Your task to perform on an android device: change the upload size in google photos Image 0: 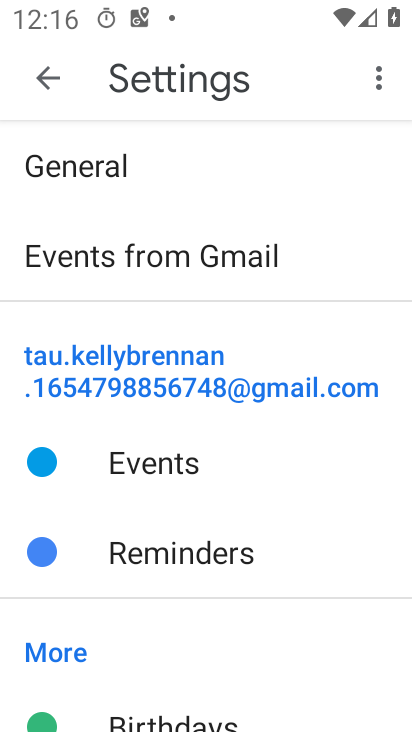
Step 0: press home button
Your task to perform on an android device: change the upload size in google photos Image 1: 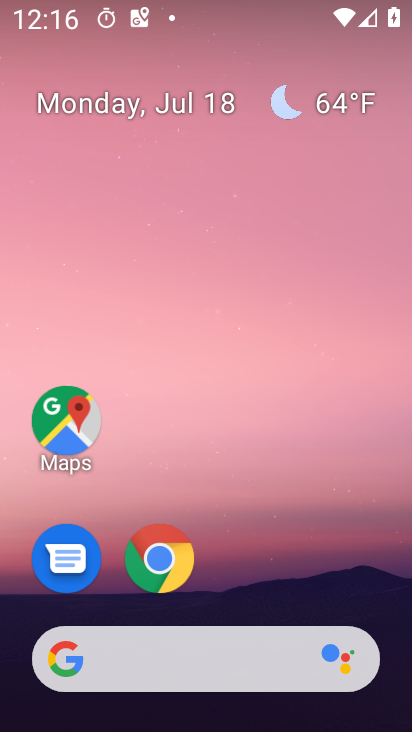
Step 1: drag from (334, 548) to (346, 165)
Your task to perform on an android device: change the upload size in google photos Image 2: 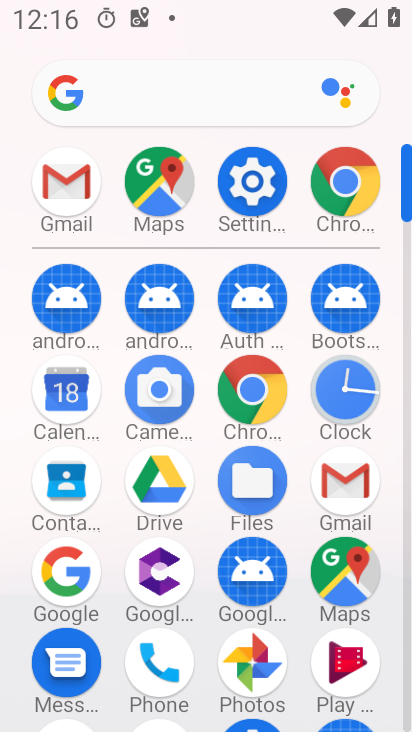
Step 2: drag from (395, 622) to (400, 411)
Your task to perform on an android device: change the upload size in google photos Image 3: 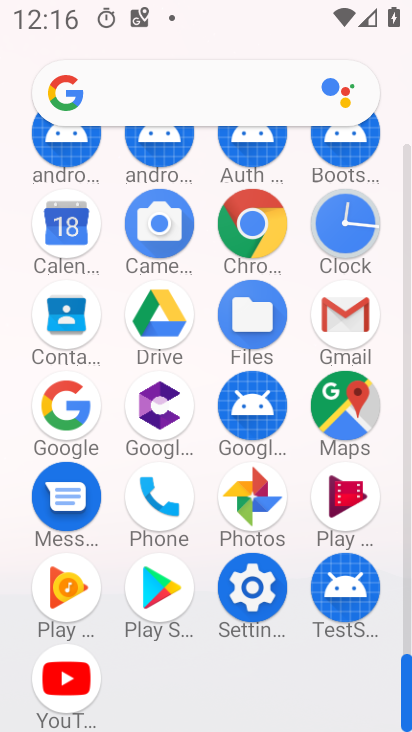
Step 3: click (268, 511)
Your task to perform on an android device: change the upload size in google photos Image 4: 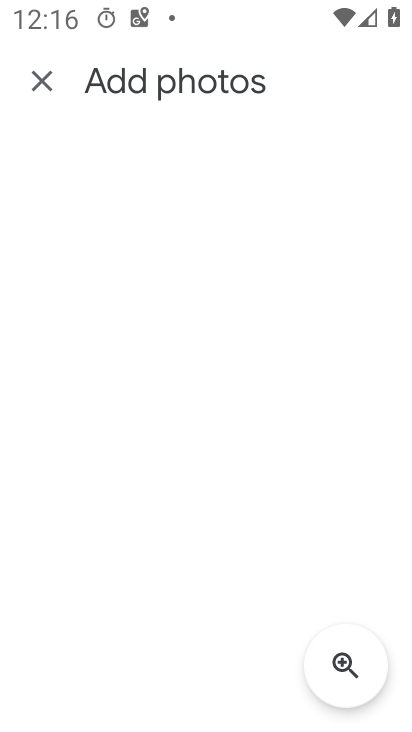
Step 4: press back button
Your task to perform on an android device: change the upload size in google photos Image 5: 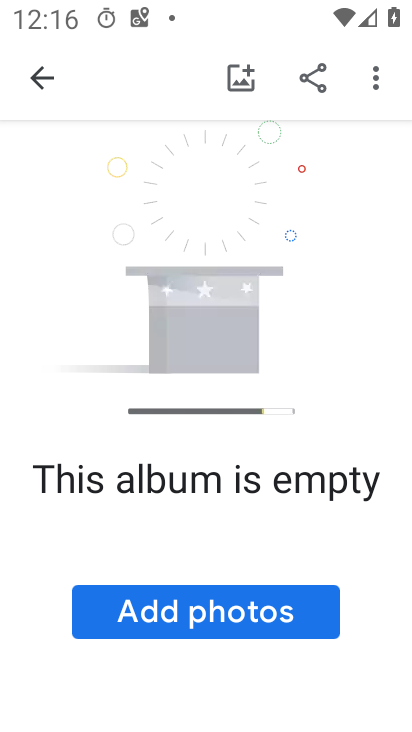
Step 5: press back button
Your task to perform on an android device: change the upload size in google photos Image 6: 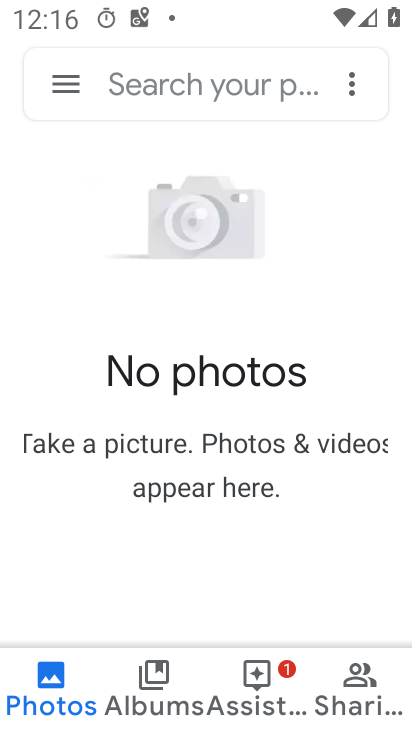
Step 6: click (79, 82)
Your task to perform on an android device: change the upload size in google photos Image 7: 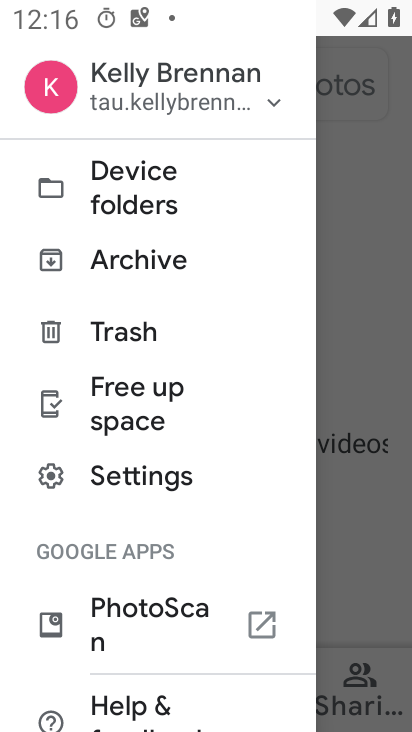
Step 7: drag from (218, 504) to (240, 392)
Your task to perform on an android device: change the upload size in google photos Image 8: 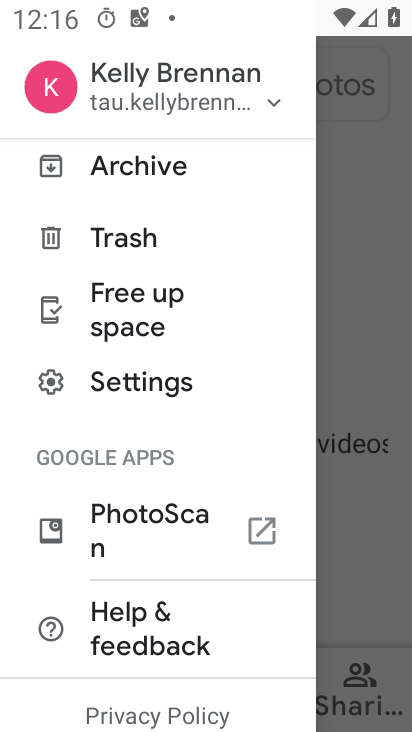
Step 8: drag from (246, 445) to (251, 314)
Your task to perform on an android device: change the upload size in google photos Image 9: 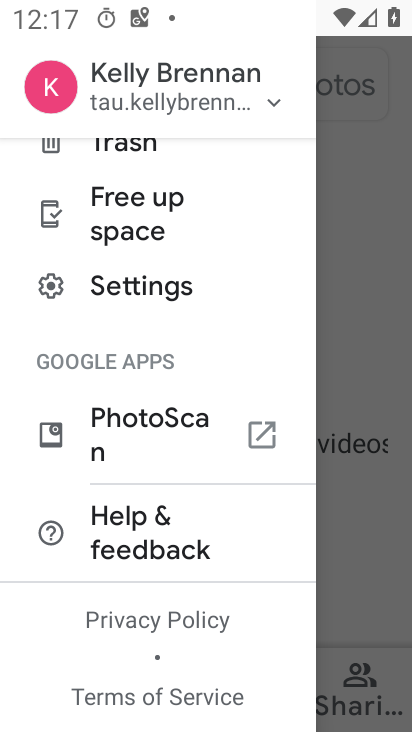
Step 9: drag from (233, 432) to (243, 267)
Your task to perform on an android device: change the upload size in google photos Image 10: 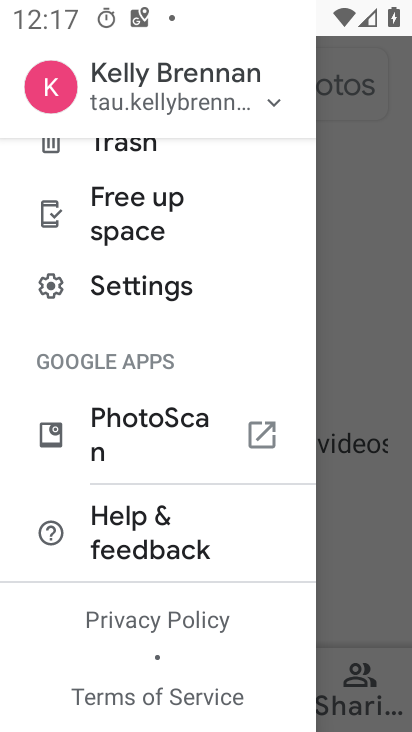
Step 10: drag from (242, 585) to (274, 350)
Your task to perform on an android device: change the upload size in google photos Image 11: 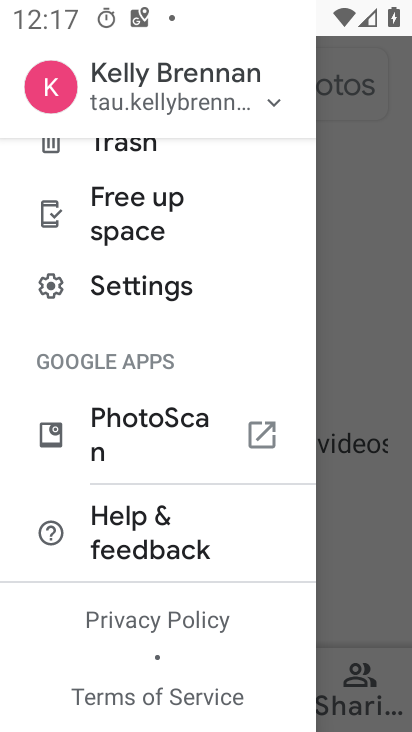
Step 11: click (151, 268)
Your task to perform on an android device: change the upload size in google photos Image 12: 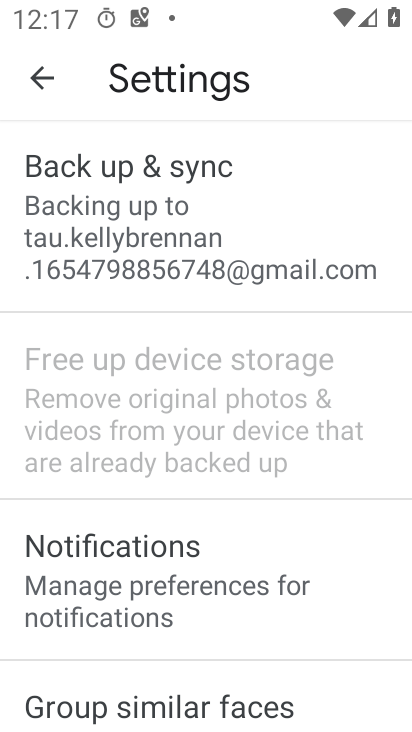
Step 12: click (218, 257)
Your task to perform on an android device: change the upload size in google photos Image 13: 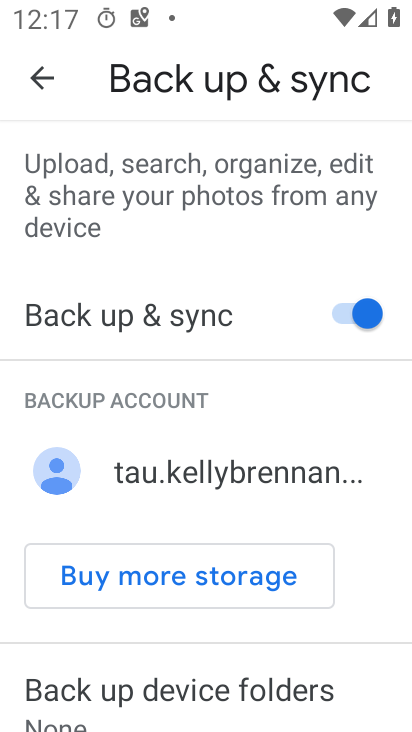
Step 13: drag from (266, 447) to (260, 333)
Your task to perform on an android device: change the upload size in google photos Image 14: 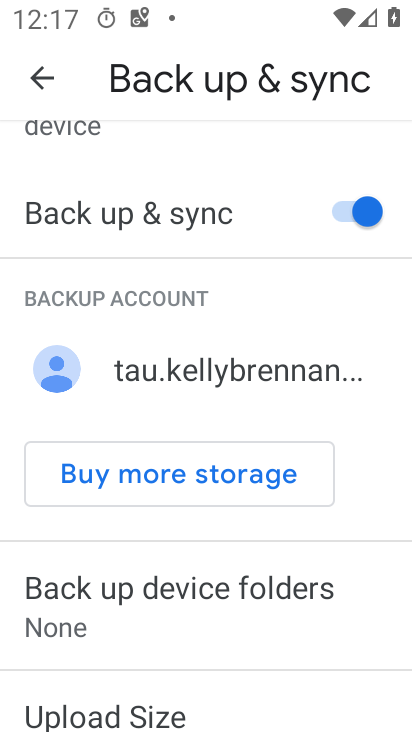
Step 14: drag from (307, 556) to (314, 383)
Your task to perform on an android device: change the upload size in google photos Image 15: 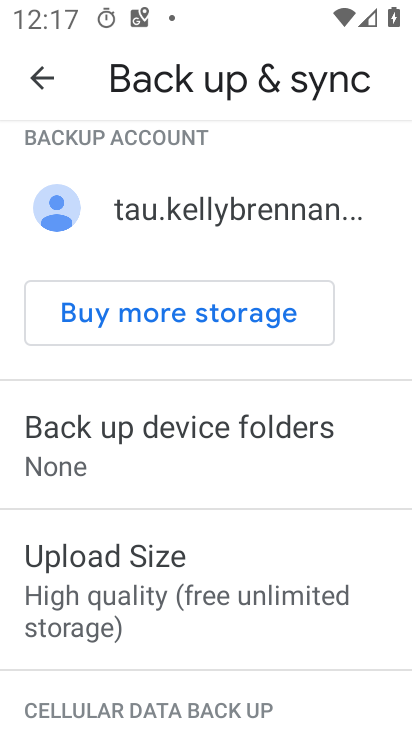
Step 15: drag from (314, 519) to (337, 375)
Your task to perform on an android device: change the upload size in google photos Image 16: 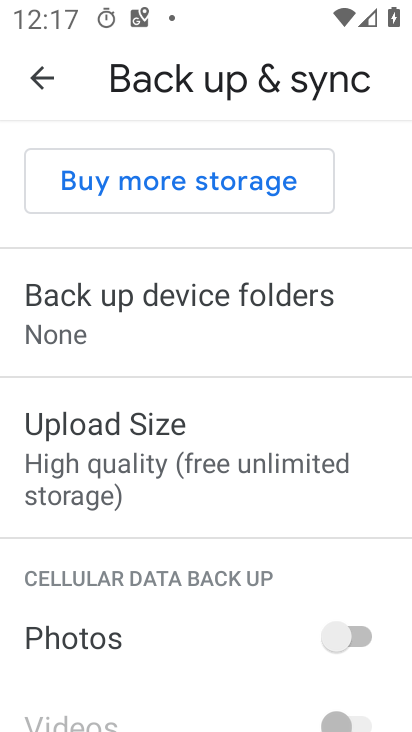
Step 16: click (294, 486)
Your task to perform on an android device: change the upload size in google photos Image 17: 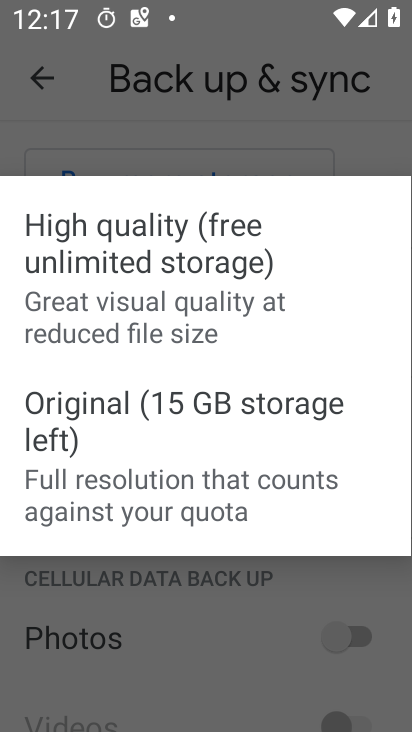
Step 17: click (294, 486)
Your task to perform on an android device: change the upload size in google photos Image 18: 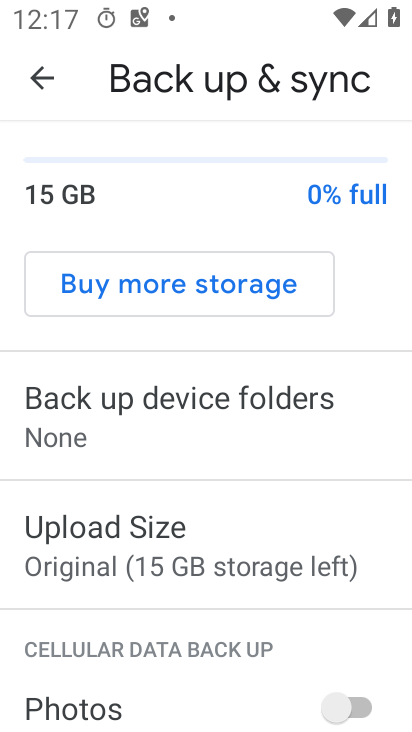
Step 18: task complete